Your task to perform on an android device: Open battery settings Image 0: 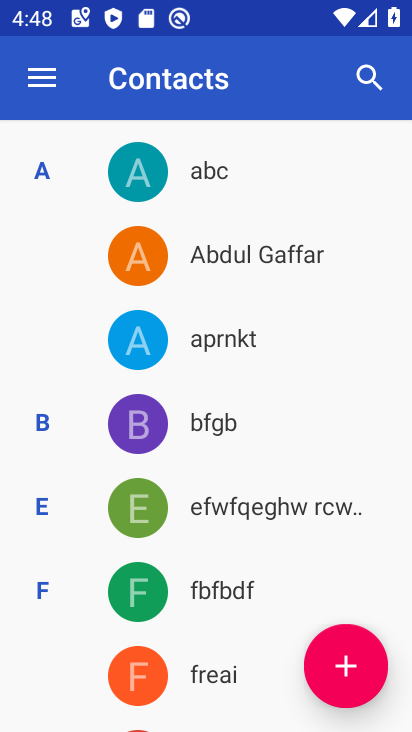
Step 0: press back button
Your task to perform on an android device: Open battery settings Image 1: 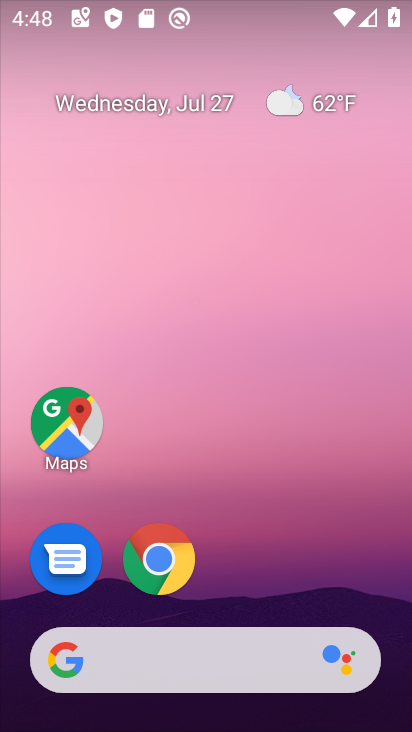
Step 1: drag from (241, 582) to (265, 17)
Your task to perform on an android device: Open battery settings Image 2: 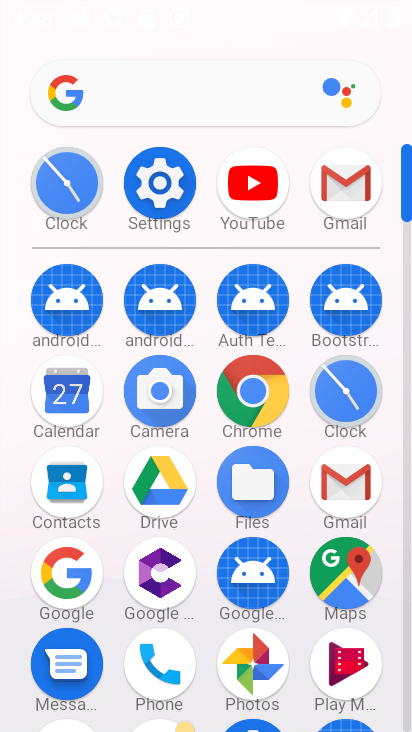
Step 2: click (170, 186)
Your task to perform on an android device: Open battery settings Image 3: 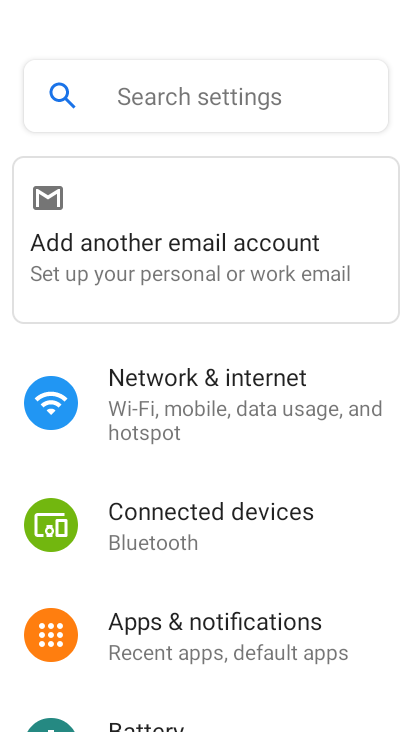
Step 3: drag from (219, 661) to (284, 329)
Your task to perform on an android device: Open battery settings Image 4: 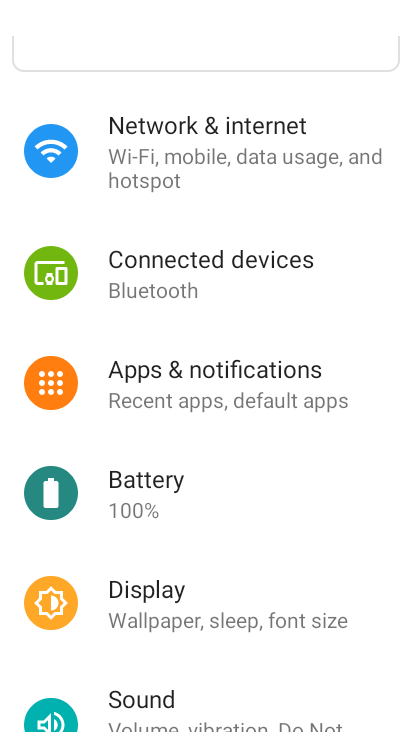
Step 4: click (181, 491)
Your task to perform on an android device: Open battery settings Image 5: 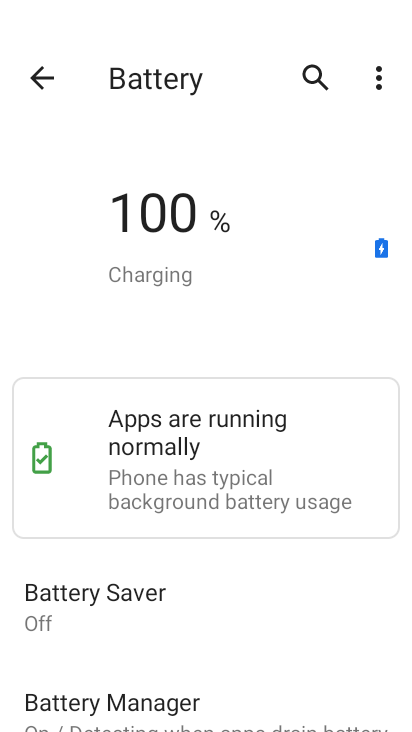
Step 5: task complete